Your task to perform on an android device: turn off picture-in-picture Image 0: 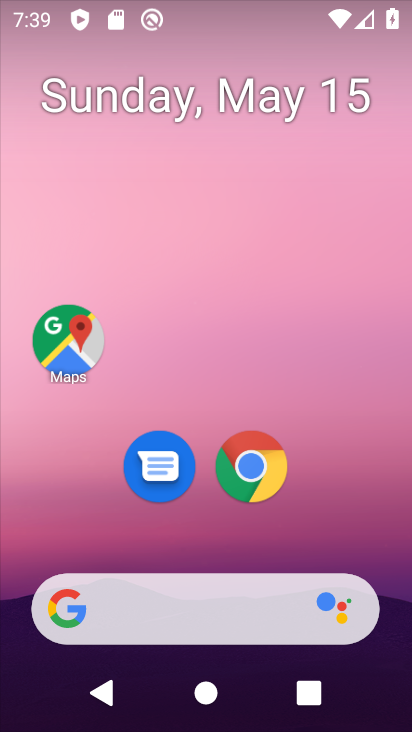
Step 0: drag from (214, 560) to (297, 37)
Your task to perform on an android device: turn off picture-in-picture Image 1: 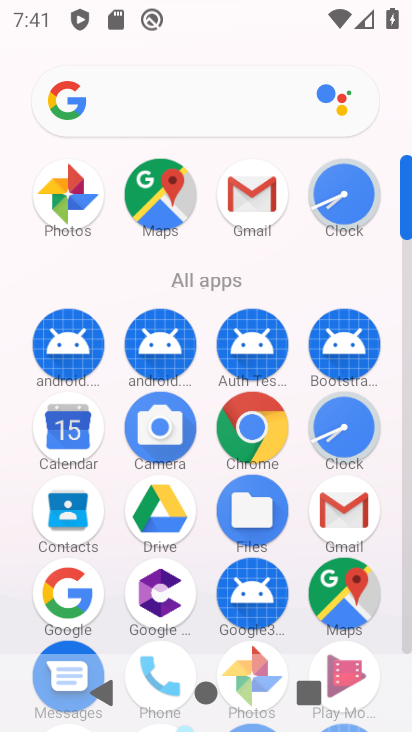
Step 1: drag from (201, 519) to (147, 23)
Your task to perform on an android device: turn off picture-in-picture Image 2: 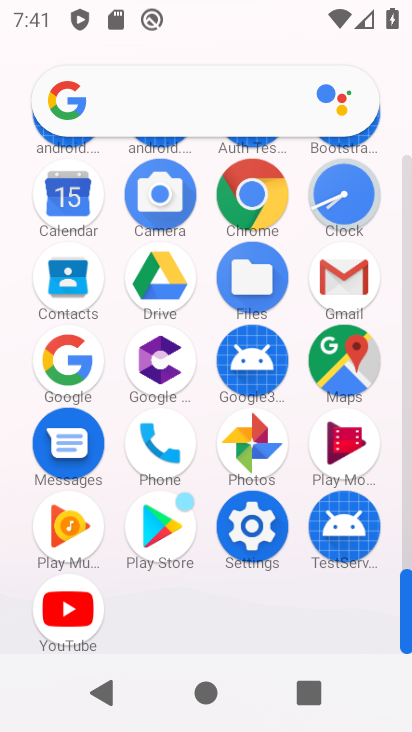
Step 2: click (255, 547)
Your task to perform on an android device: turn off picture-in-picture Image 3: 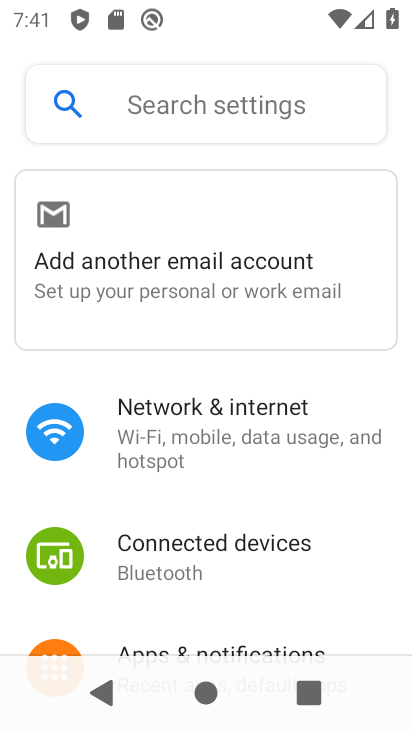
Step 3: drag from (167, 501) to (128, 14)
Your task to perform on an android device: turn off picture-in-picture Image 4: 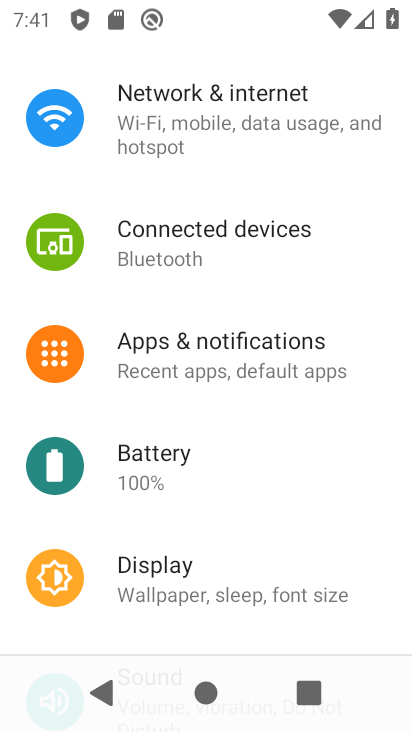
Step 4: click (156, 364)
Your task to perform on an android device: turn off picture-in-picture Image 5: 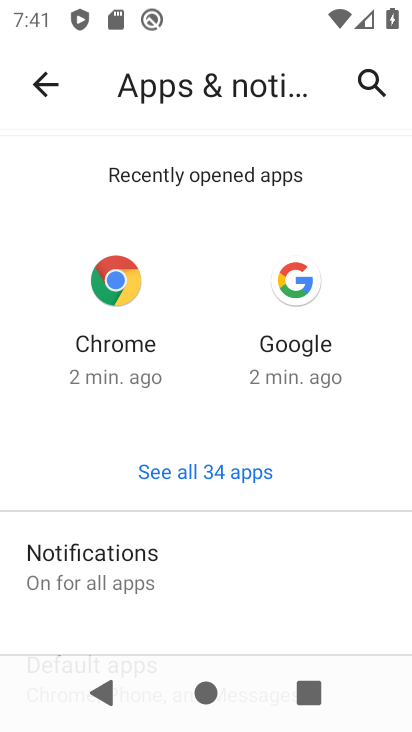
Step 5: drag from (248, 546) to (193, 116)
Your task to perform on an android device: turn off picture-in-picture Image 6: 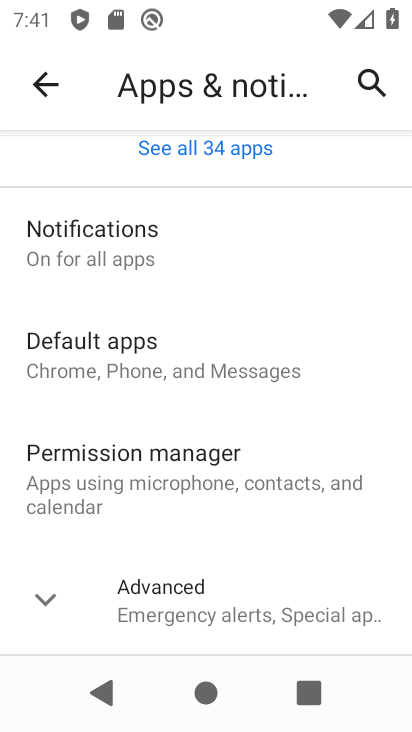
Step 6: click (212, 609)
Your task to perform on an android device: turn off picture-in-picture Image 7: 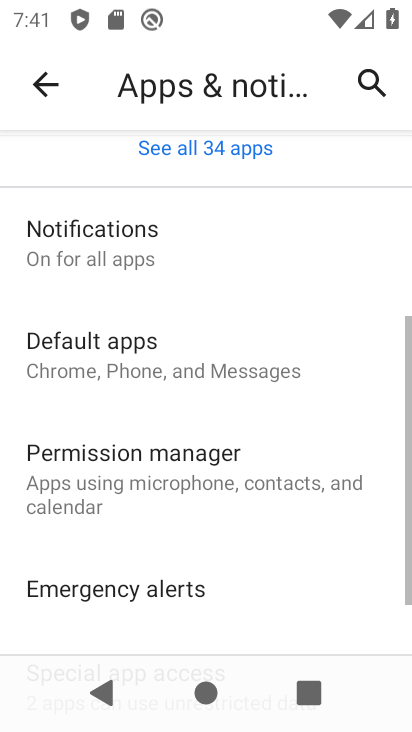
Step 7: drag from (212, 609) to (190, 142)
Your task to perform on an android device: turn off picture-in-picture Image 8: 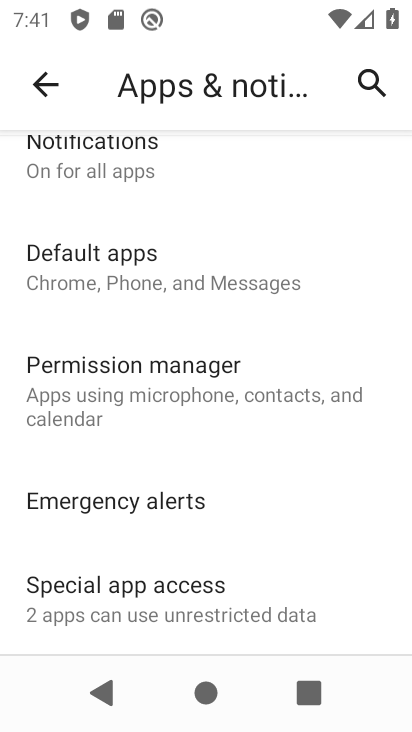
Step 8: click (164, 598)
Your task to perform on an android device: turn off picture-in-picture Image 9: 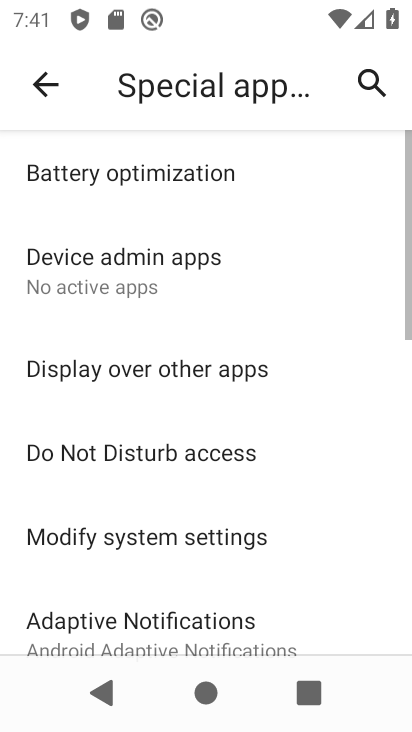
Step 9: drag from (172, 586) to (152, 144)
Your task to perform on an android device: turn off picture-in-picture Image 10: 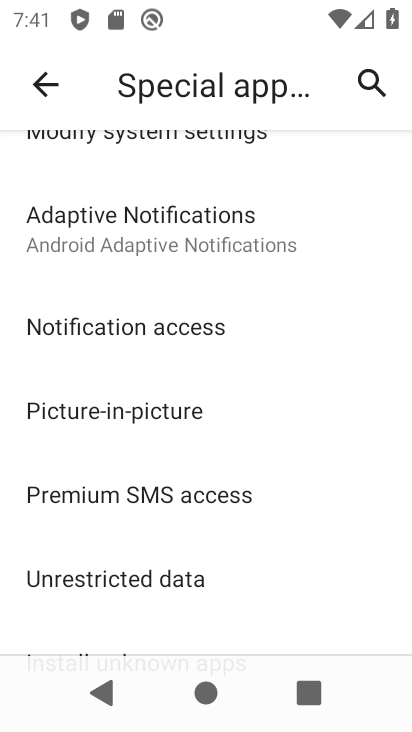
Step 10: click (123, 394)
Your task to perform on an android device: turn off picture-in-picture Image 11: 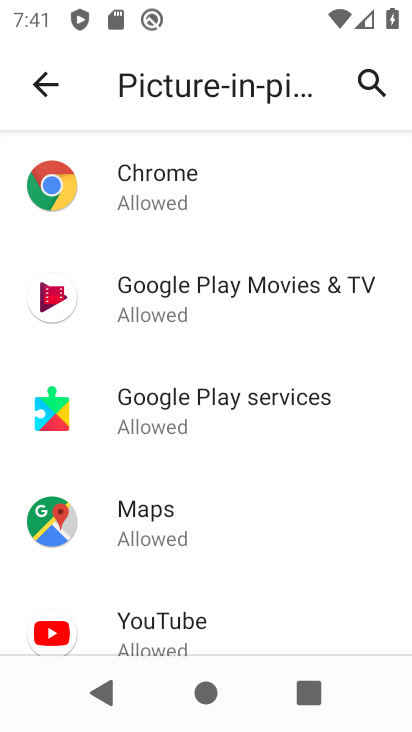
Step 11: task complete